Your task to perform on an android device: install app "Facebook Messenger" Image 0: 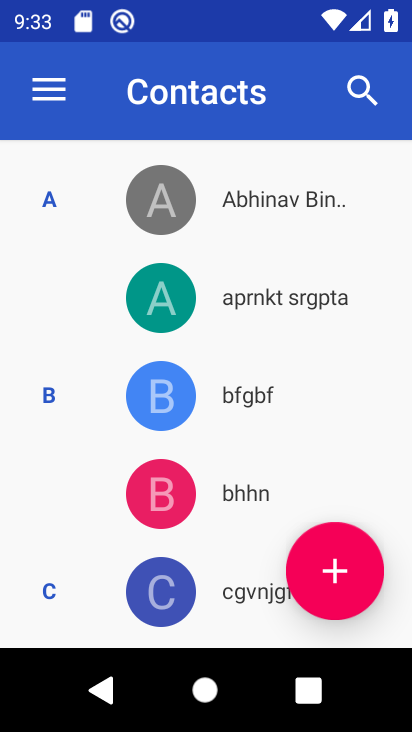
Step 0: press home button
Your task to perform on an android device: install app "Facebook Messenger" Image 1: 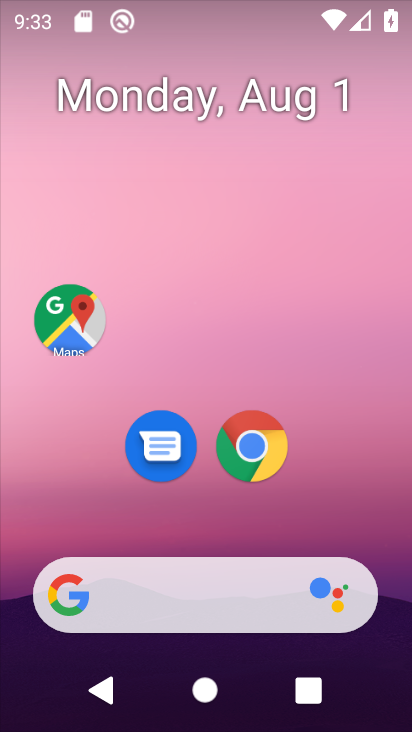
Step 1: drag from (255, 339) to (259, 7)
Your task to perform on an android device: install app "Facebook Messenger" Image 2: 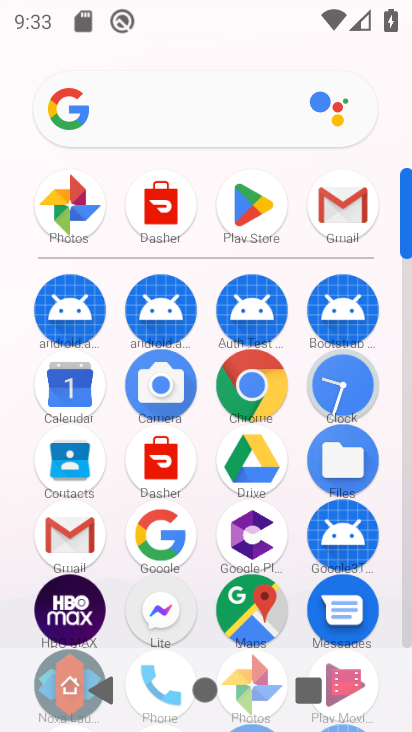
Step 2: click (243, 213)
Your task to perform on an android device: install app "Facebook Messenger" Image 3: 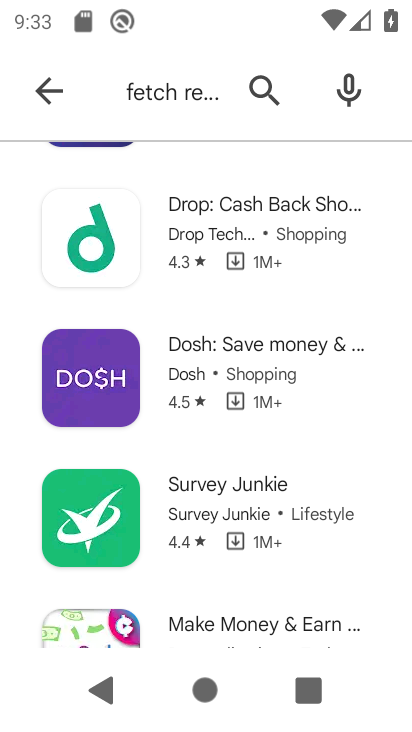
Step 3: click (272, 86)
Your task to perform on an android device: install app "Facebook Messenger" Image 4: 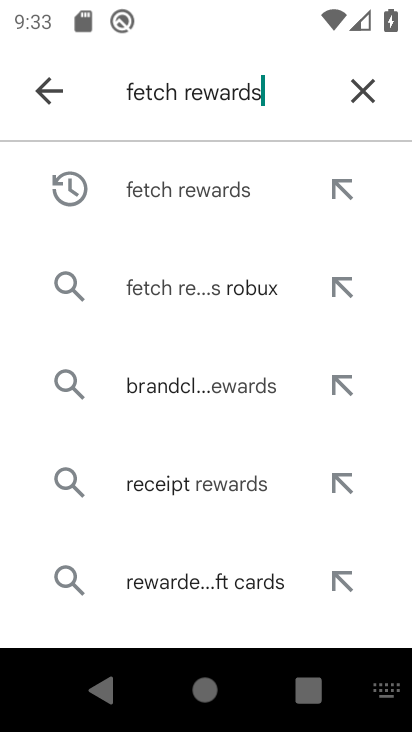
Step 4: click (368, 78)
Your task to perform on an android device: install app "Facebook Messenger" Image 5: 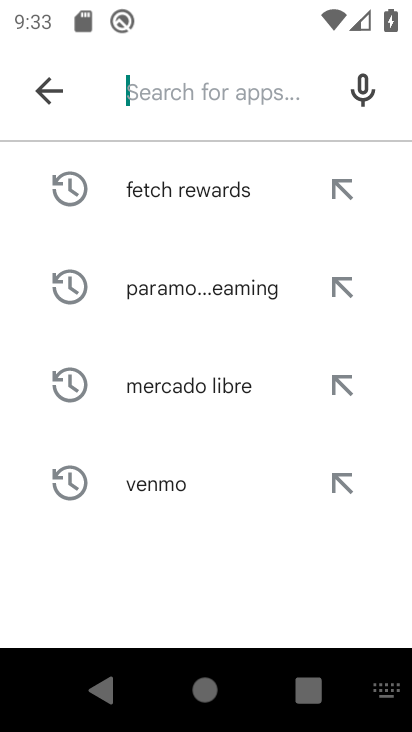
Step 5: type "Facebook Messenger"
Your task to perform on an android device: install app "Facebook Messenger" Image 6: 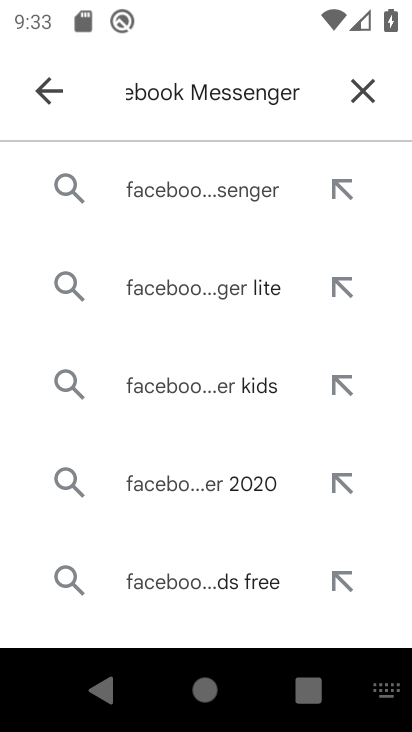
Step 6: click (225, 168)
Your task to perform on an android device: install app "Facebook Messenger" Image 7: 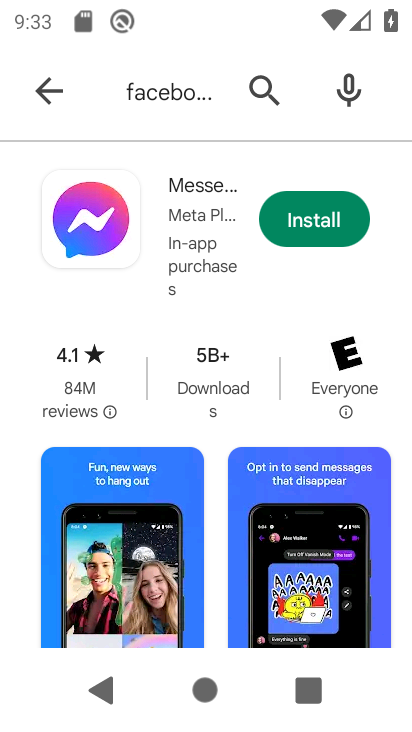
Step 7: click (307, 218)
Your task to perform on an android device: install app "Facebook Messenger" Image 8: 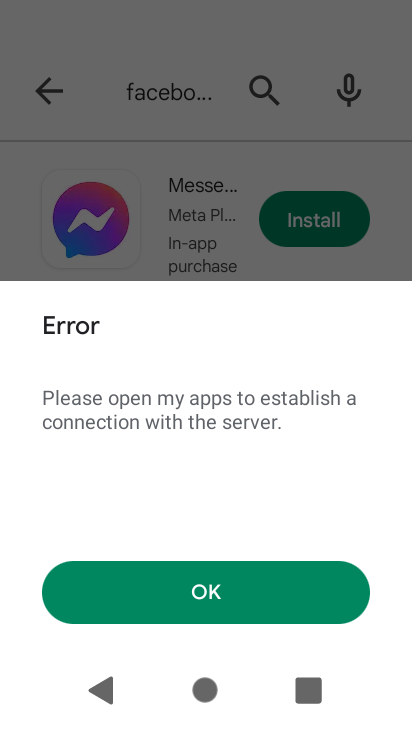
Step 8: task complete